Your task to perform on an android device: Open sound settings Image 0: 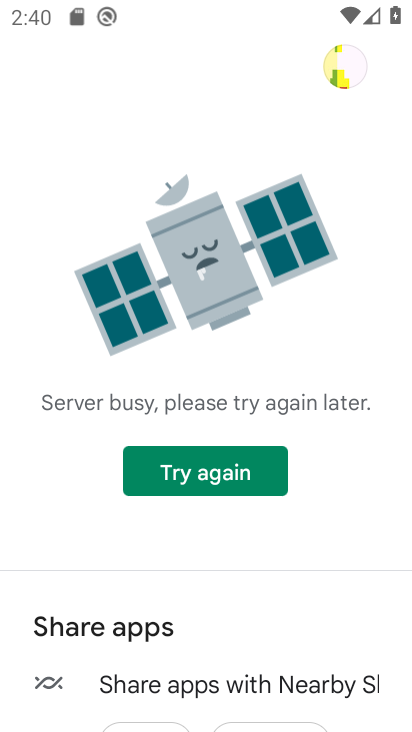
Step 0: press home button
Your task to perform on an android device: Open sound settings Image 1: 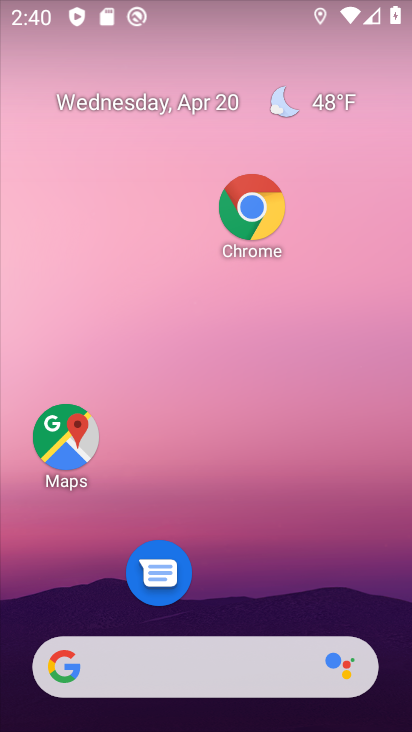
Step 1: drag from (243, 587) to (262, 111)
Your task to perform on an android device: Open sound settings Image 2: 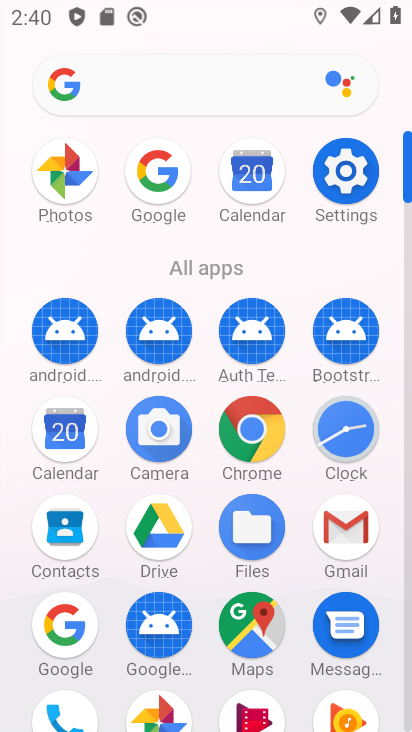
Step 2: click (336, 182)
Your task to perform on an android device: Open sound settings Image 3: 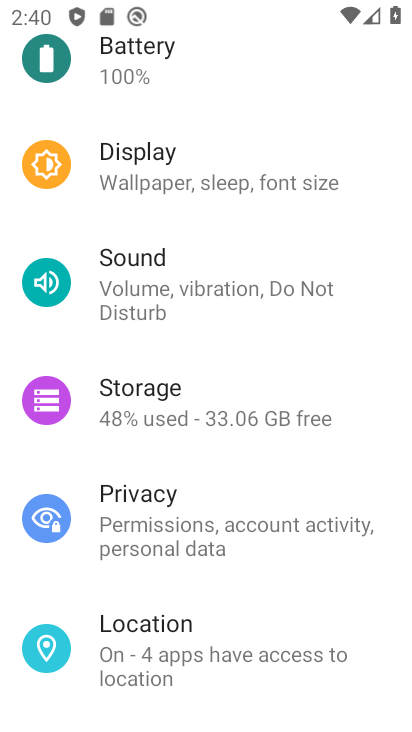
Step 3: click (193, 285)
Your task to perform on an android device: Open sound settings Image 4: 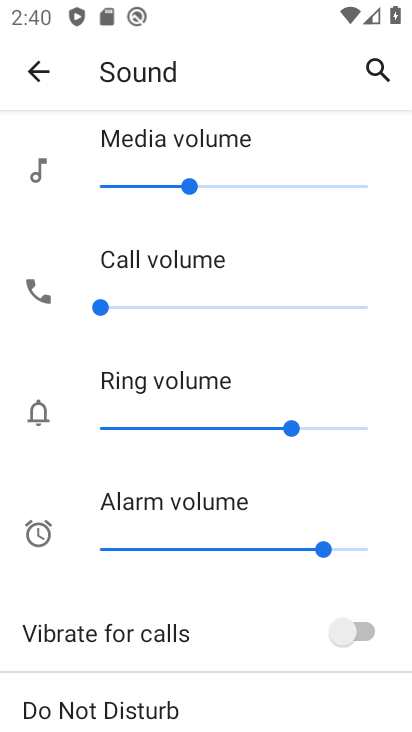
Step 4: task complete